Your task to perform on an android device: show emergency info Image 0: 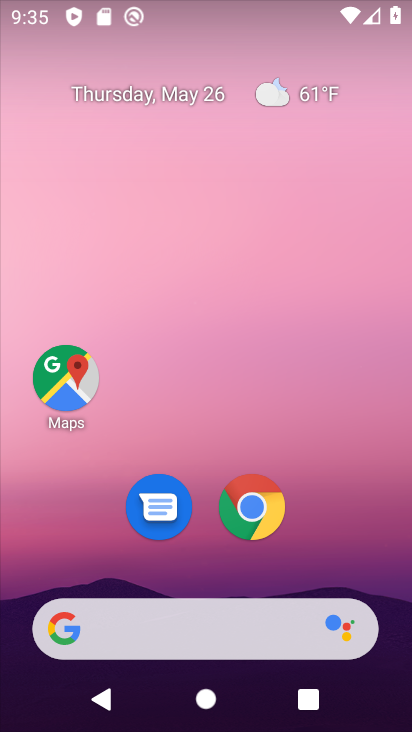
Step 0: drag from (310, 542) to (241, 139)
Your task to perform on an android device: show emergency info Image 1: 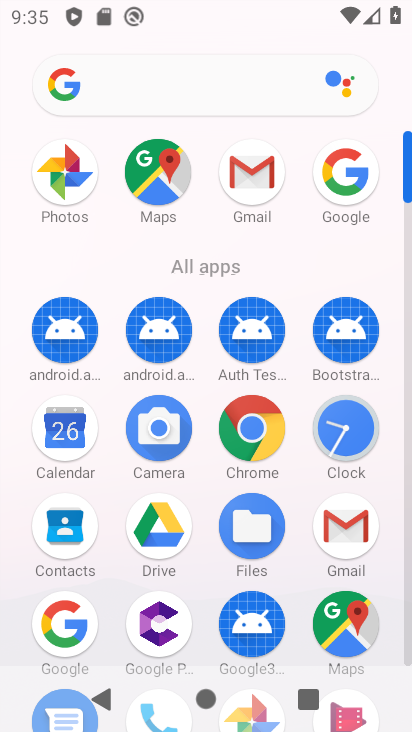
Step 1: drag from (105, 577) to (138, 382)
Your task to perform on an android device: show emergency info Image 2: 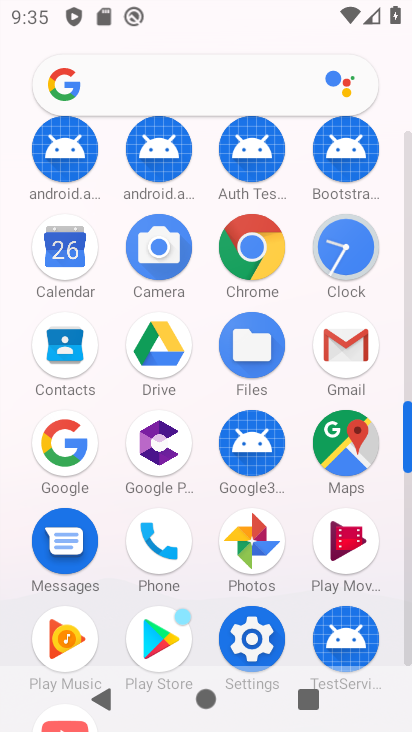
Step 2: drag from (208, 592) to (204, 398)
Your task to perform on an android device: show emergency info Image 3: 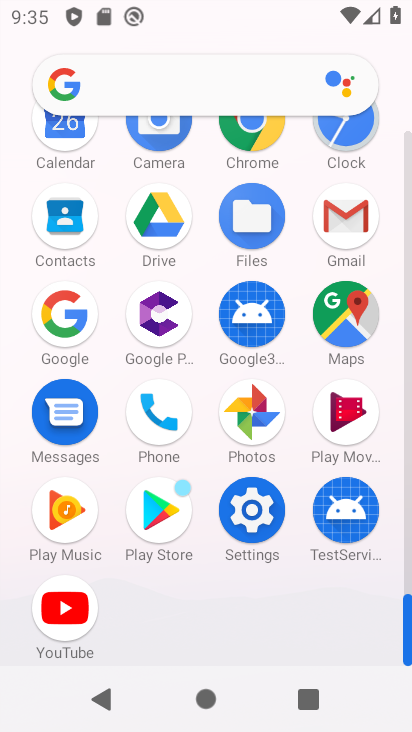
Step 3: click (252, 510)
Your task to perform on an android device: show emergency info Image 4: 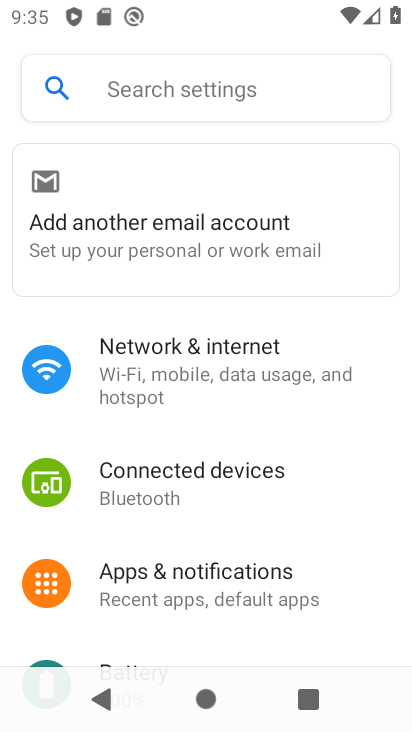
Step 4: drag from (161, 546) to (194, 457)
Your task to perform on an android device: show emergency info Image 5: 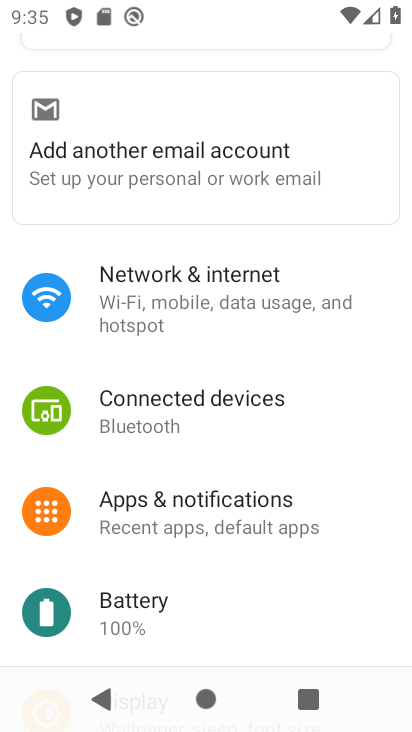
Step 5: drag from (136, 560) to (160, 454)
Your task to perform on an android device: show emergency info Image 6: 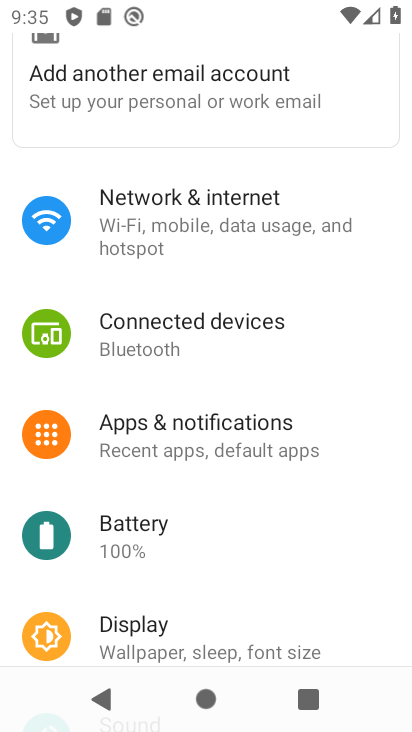
Step 6: drag from (135, 579) to (196, 477)
Your task to perform on an android device: show emergency info Image 7: 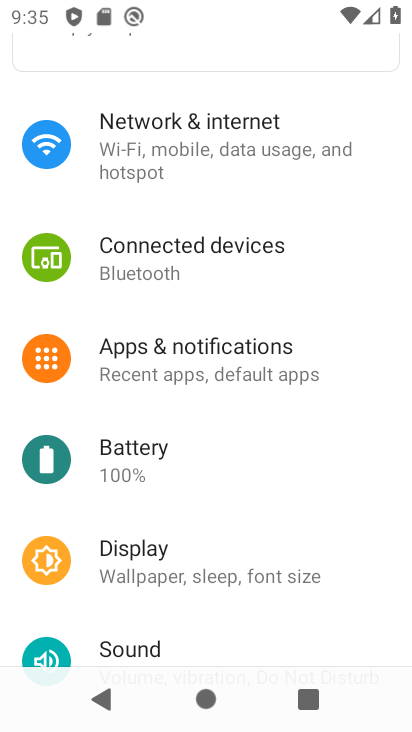
Step 7: drag from (118, 610) to (193, 475)
Your task to perform on an android device: show emergency info Image 8: 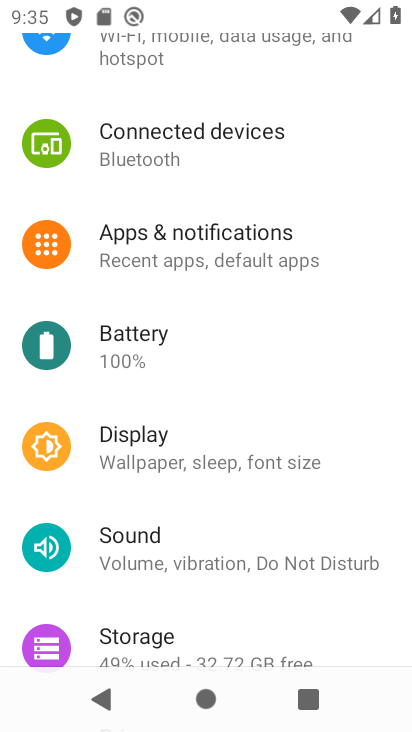
Step 8: drag from (111, 605) to (179, 487)
Your task to perform on an android device: show emergency info Image 9: 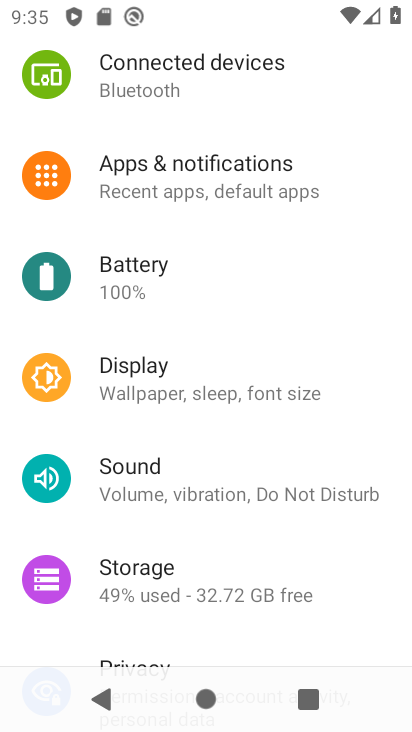
Step 9: drag from (85, 637) to (208, 464)
Your task to perform on an android device: show emergency info Image 10: 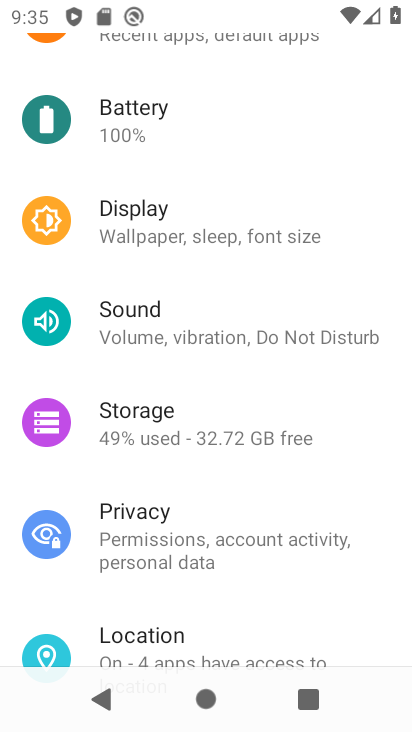
Step 10: drag from (69, 489) to (159, 352)
Your task to perform on an android device: show emergency info Image 11: 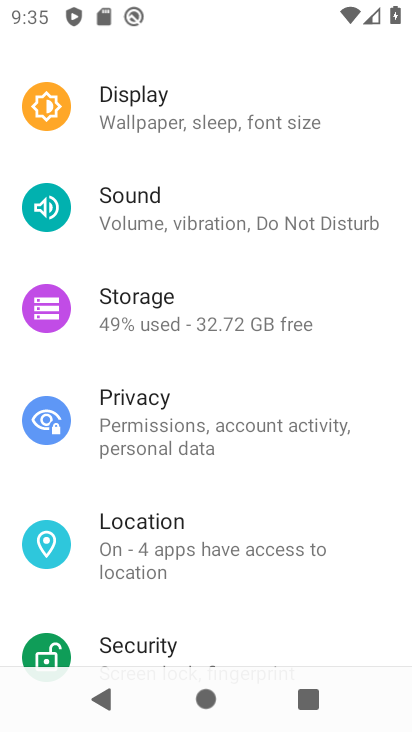
Step 11: drag from (85, 485) to (163, 371)
Your task to perform on an android device: show emergency info Image 12: 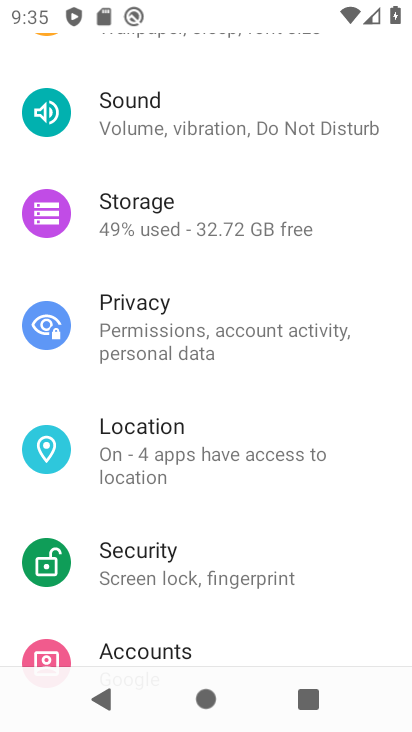
Step 12: drag from (63, 510) to (202, 351)
Your task to perform on an android device: show emergency info Image 13: 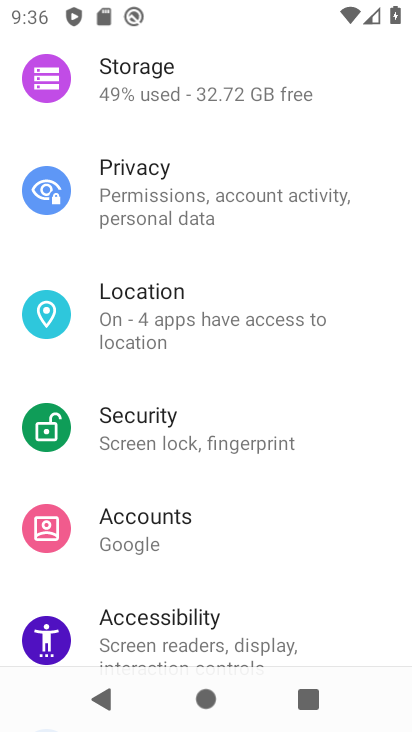
Step 13: drag from (93, 516) to (176, 412)
Your task to perform on an android device: show emergency info Image 14: 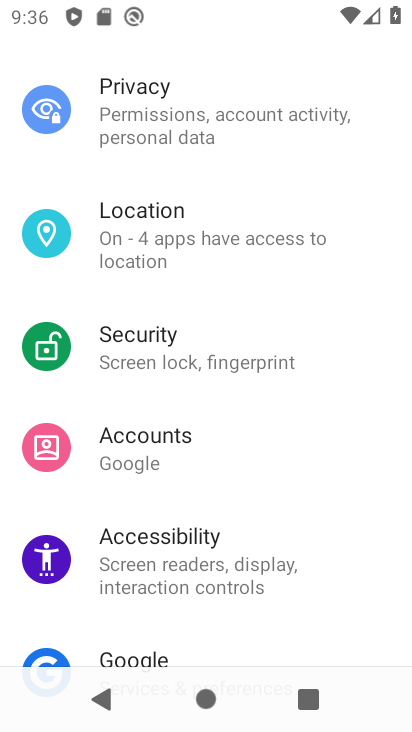
Step 14: drag from (83, 511) to (180, 383)
Your task to perform on an android device: show emergency info Image 15: 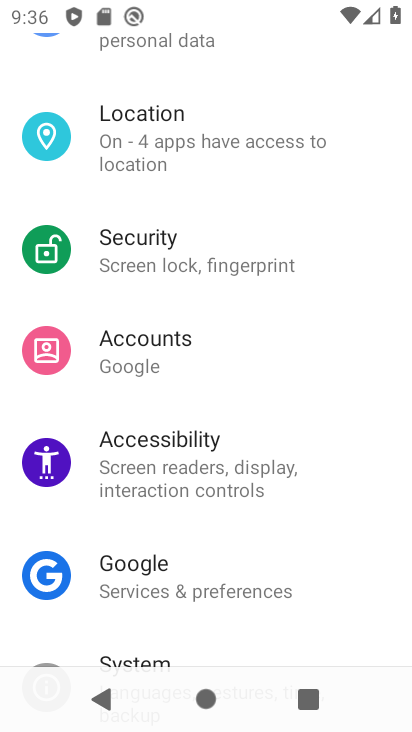
Step 15: drag from (85, 532) to (149, 411)
Your task to perform on an android device: show emergency info Image 16: 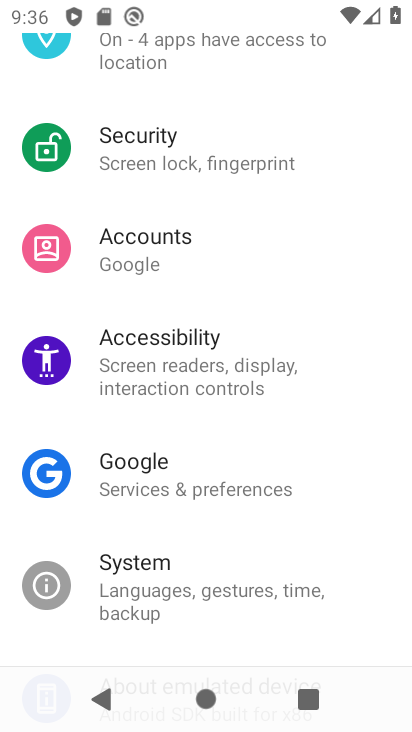
Step 16: drag from (68, 543) to (164, 407)
Your task to perform on an android device: show emergency info Image 17: 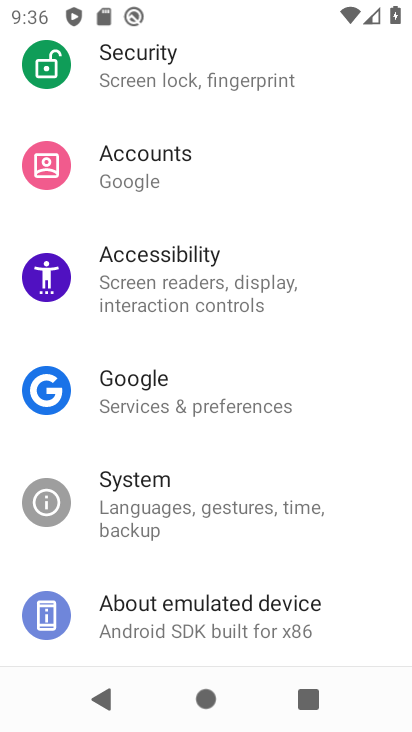
Step 17: click (192, 608)
Your task to perform on an android device: show emergency info Image 18: 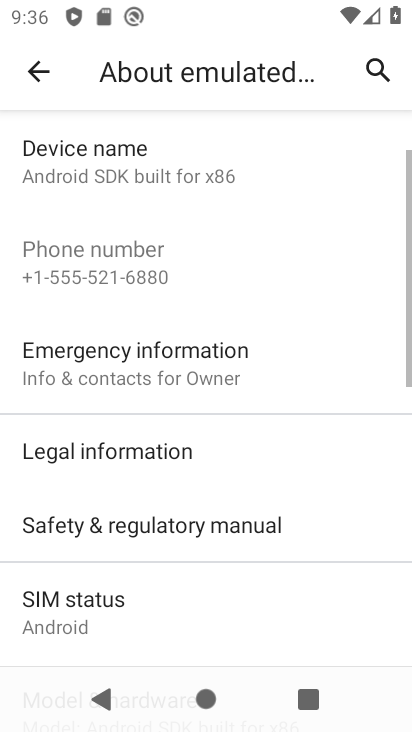
Step 18: click (175, 355)
Your task to perform on an android device: show emergency info Image 19: 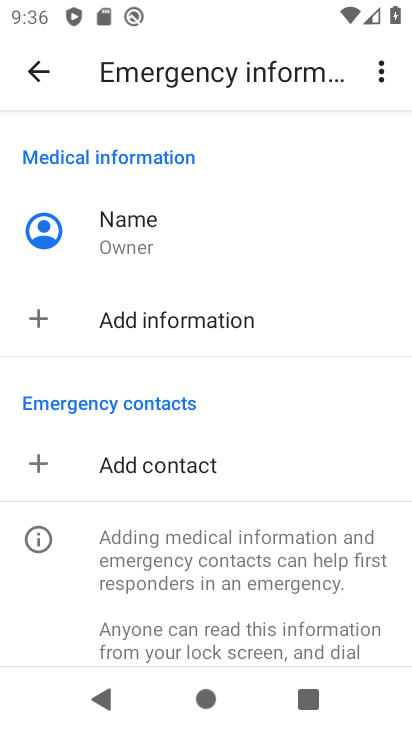
Step 19: task complete